Your task to perform on an android device: Open Android settings Image 0: 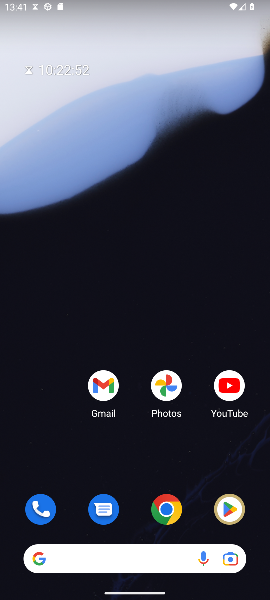
Step 0: press home button
Your task to perform on an android device: Open Android settings Image 1: 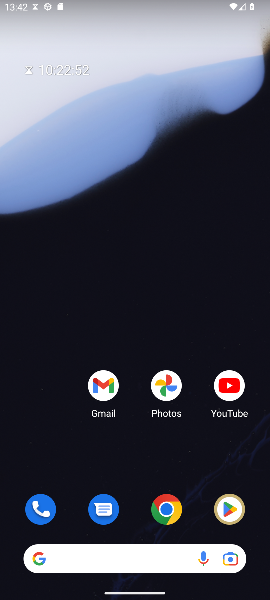
Step 1: drag from (135, 515) to (164, 186)
Your task to perform on an android device: Open Android settings Image 2: 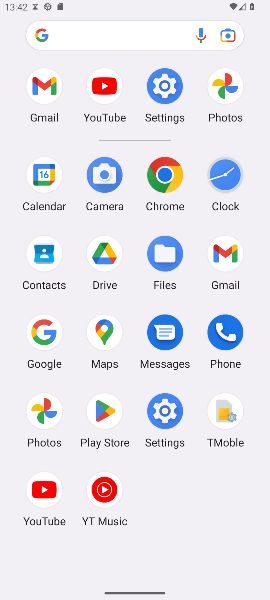
Step 2: click (162, 420)
Your task to perform on an android device: Open Android settings Image 3: 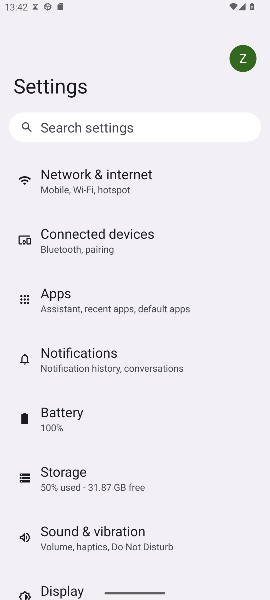
Step 3: task complete